Your task to perform on an android device: Open the Play Movies app and select the watchlist tab. Image 0: 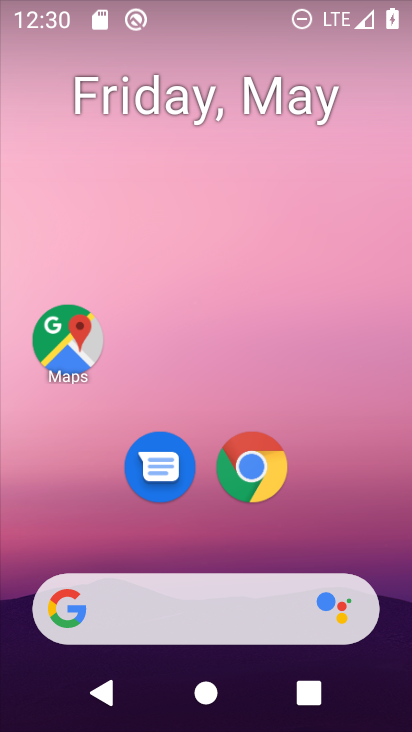
Step 0: drag from (304, 604) to (333, 9)
Your task to perform on an android device: Open the Play Movies app and select the watchlist tab. Image 1: 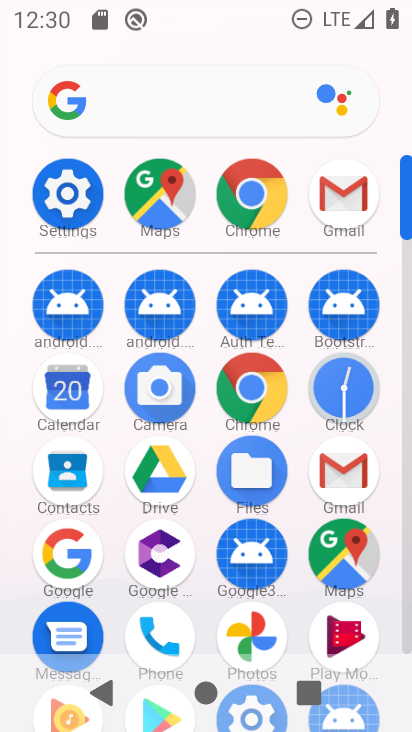
Step 1: click (345, 615)
Your task to perform on an android device: Open the Play Movies app and select the watchlist tab. Image 2: 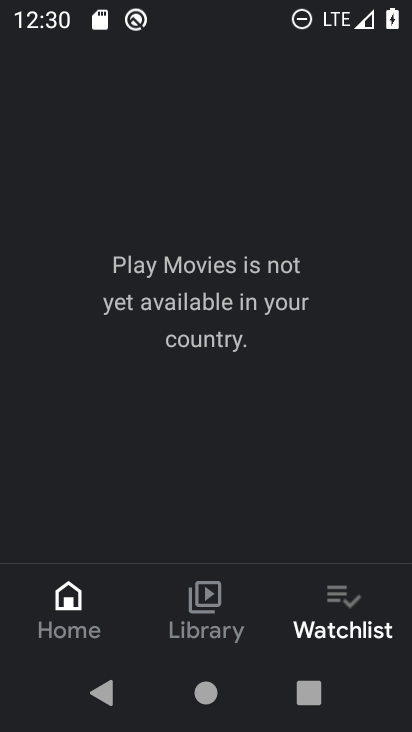
Step 2: click (323, 612)
Your task to perform on an android device: Open the Play Movies app and select the watchlist tab. Image 3: 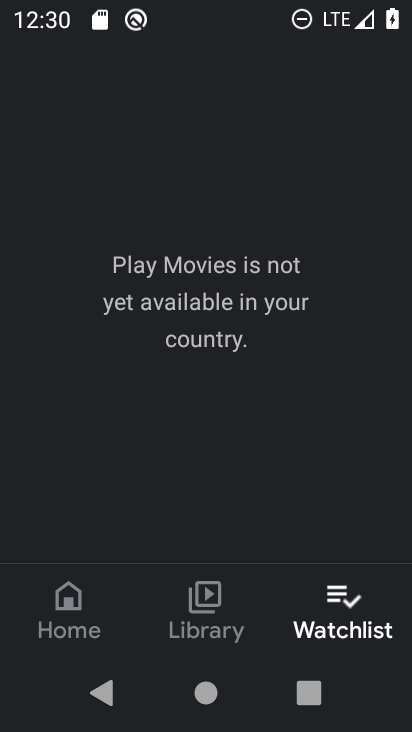
Step 3: task complete